Your task to perform on an android device: stop showing notifications on the lock screen Image 0: 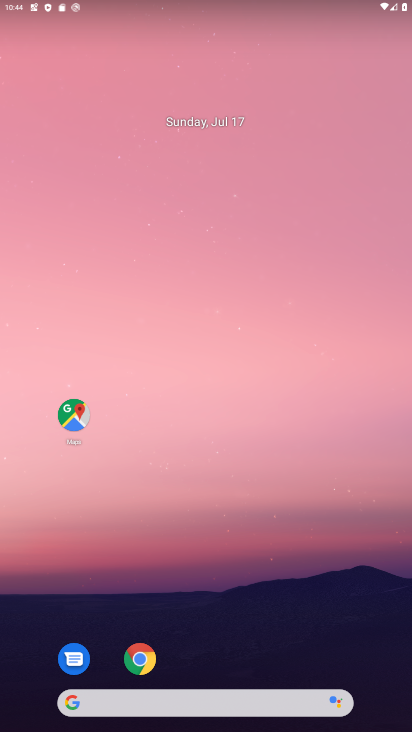
Step 0: drag from (244, 665) to (234, 116)
Your task to perform on an android device: stop showing notifications on the lock screen Image 1: 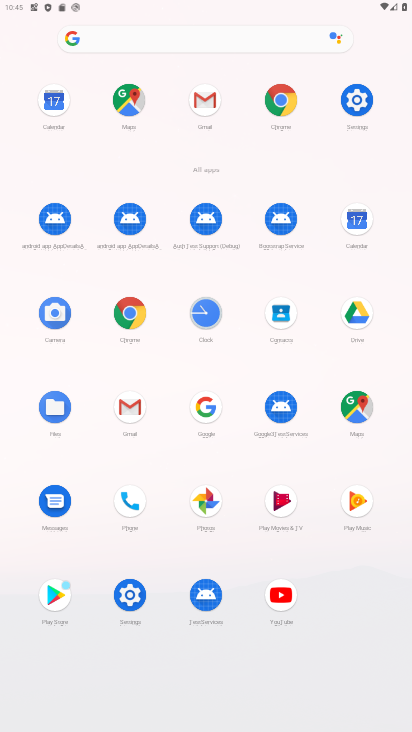
Step 1: click (359, 94)
Your task to perform on an android device: stop showing notifications on the lock screen Image 2: 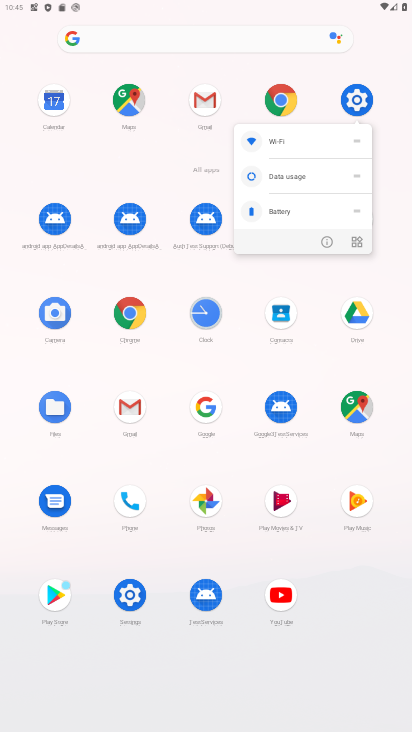
Step 2: click (362, 104)
Your task to perform on an android device: stop showing notifications on the lock screen Image 3: 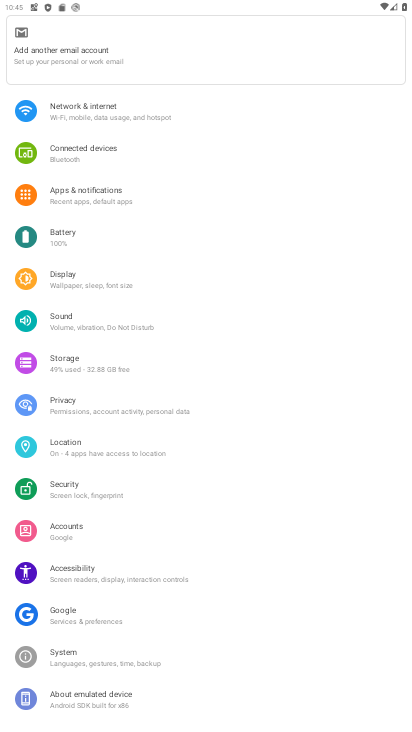
Step 3: click (106, 202)
Your task to perform on an android device: stop showing notifications on the lock screen Image 4: 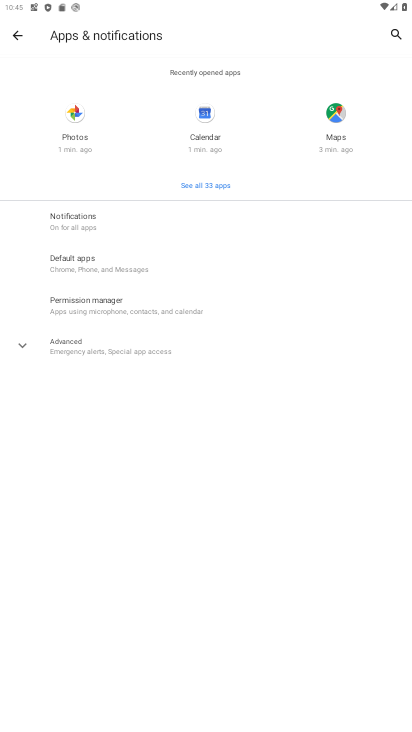
Step 4: click (108, 223)
Your task to perform on an android device: stop showing notifications on the lock screen Image 5: 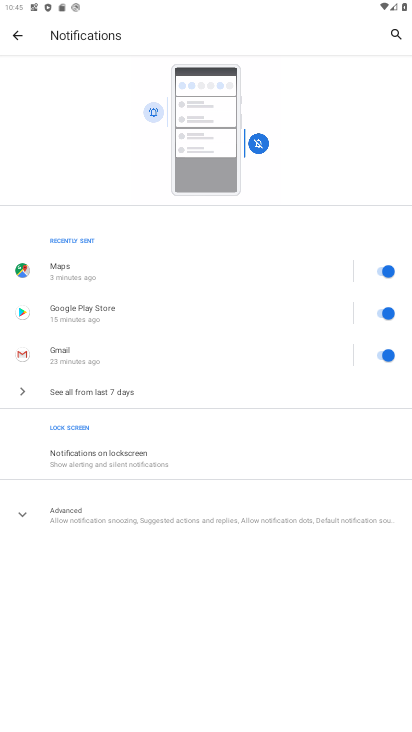
Step 5: click (126, 458)
Your task to perform on an android device: stop showing notifications on the lock screen Image 6: 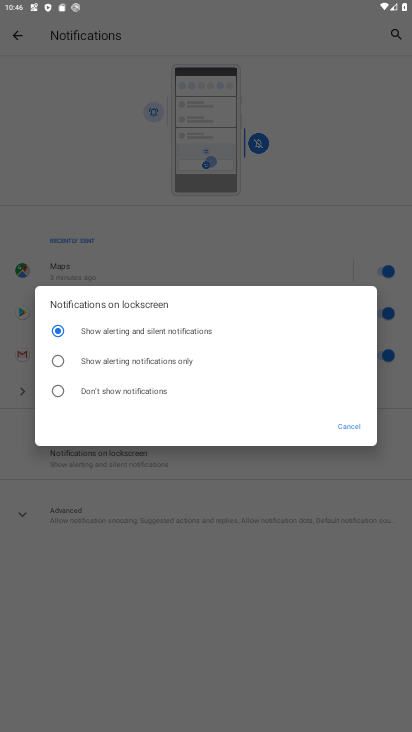
Step 6: click (133, 390)
Your task to perform on an android device: stop showing notifications on the lock screen Image 7: 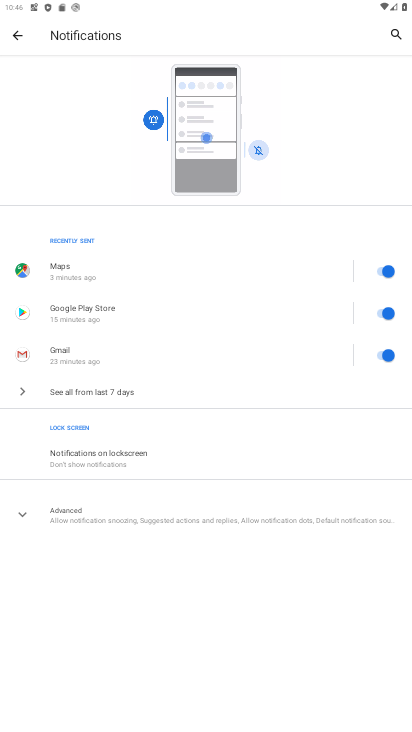
Step 7: task complete